Your task to perform on an android device: Open the Play Movies app and select the watchlist tab. Image 0: 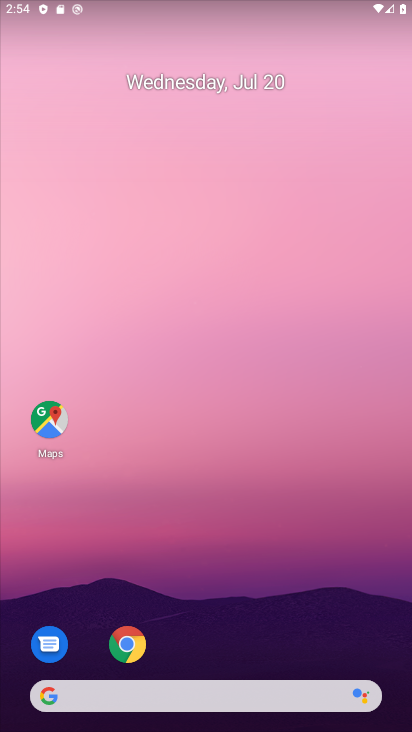
Step 0: drag from (246, 456) to (246, 133)
Your task to perform on an android device: Open the Play Movies app and select the watchlist tab. Image 1: 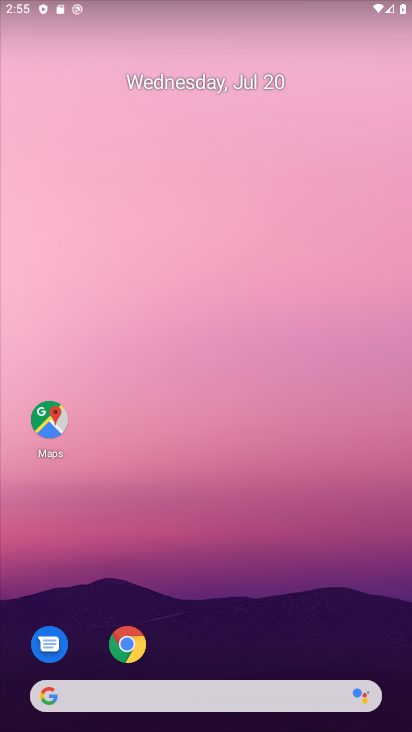
Step 1: drag from (185, 646) to (207, 24)
Your task to perform on an android device: Open the Play Movies app and select the watchlist tab. Image 2: 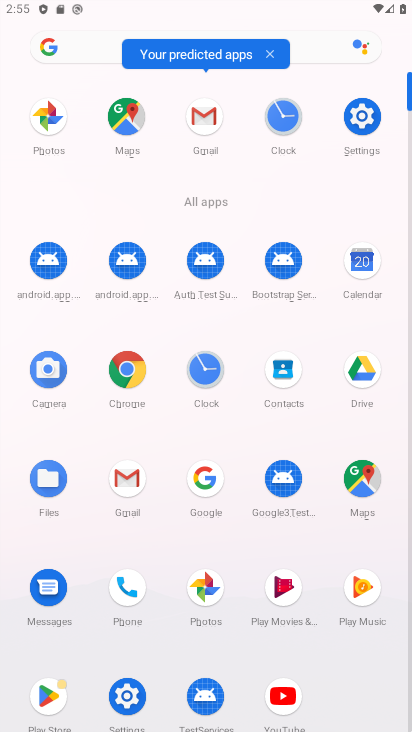
Step 2: click (278, 601)
Your task to perform on an android device: Open the Play Movies app and select the watchlist tab. Image 3: 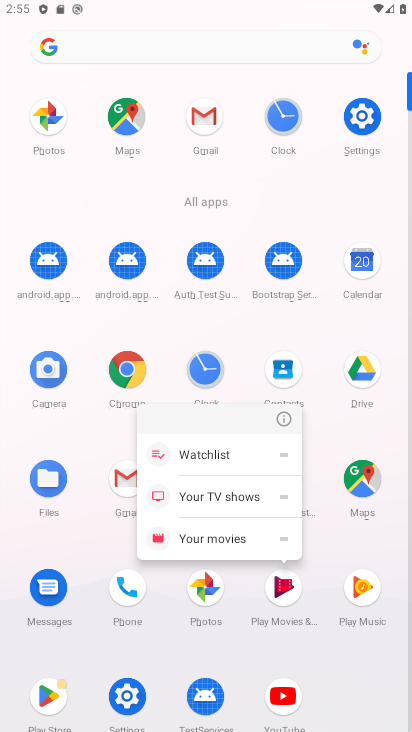
Step 3: click (283, 585)
Your task to perform on an android device: Open the Play Movies app and select the watchlist tab. Image 4: 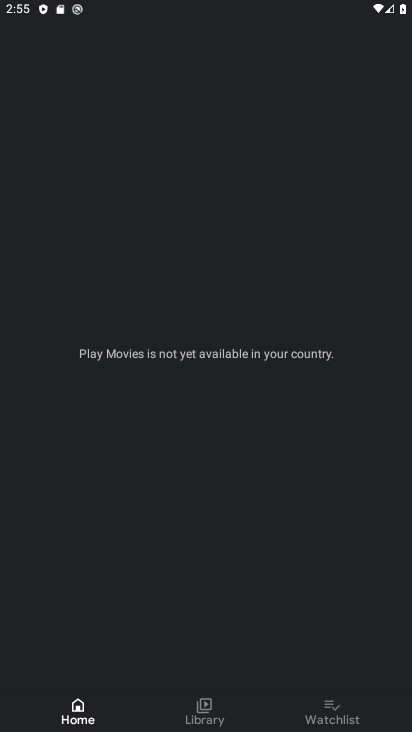
Step 4: click (338, 709)
Your task to perform on an android device: Open the Play Movies app and select the watchlist tab. Image 5: 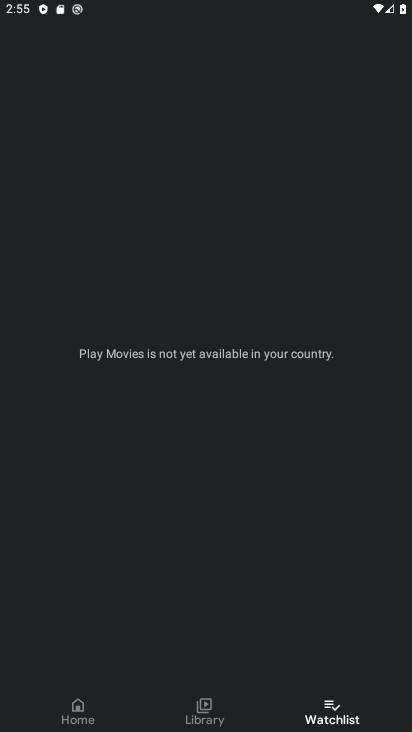
Step 5: task complete